Your task to perform on an android device: delete a single message in the gmail app Image 0: 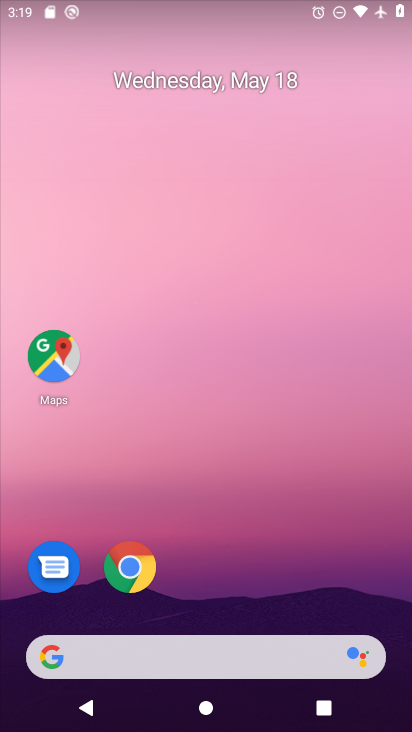
Step 0: drag from (220, 595) to (251, 239)
Your task to perform on an android device: delete a single message in the gmail app Image 1: 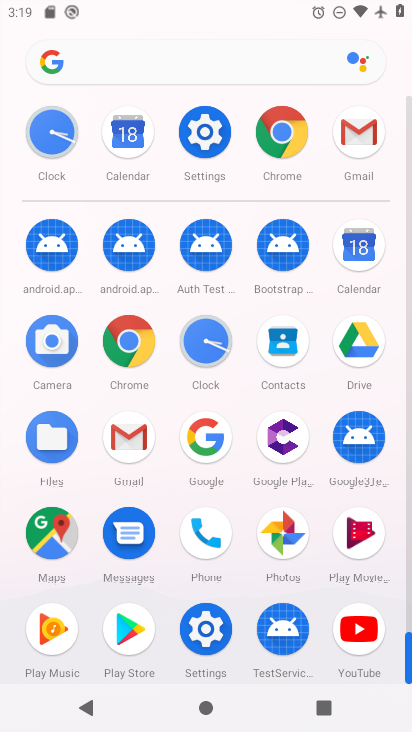
Step 1: click (116, 437)
Your task to perform on an android device: delete a single message in the gmail app Image 2: 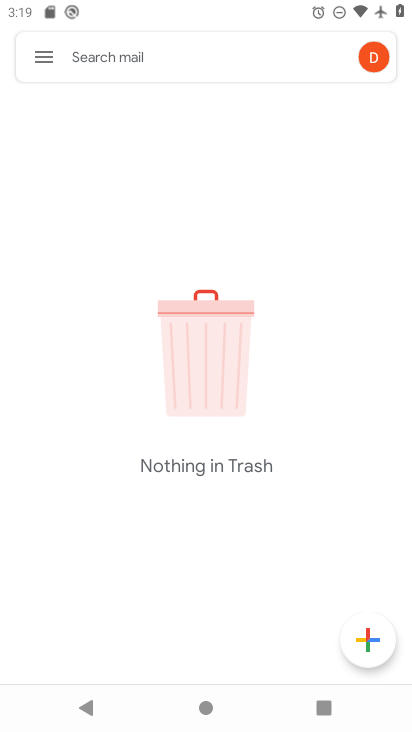
Step 2: click (35, 56)
Your task to perform on an android device: delete a single message in the gmail app Image 3: 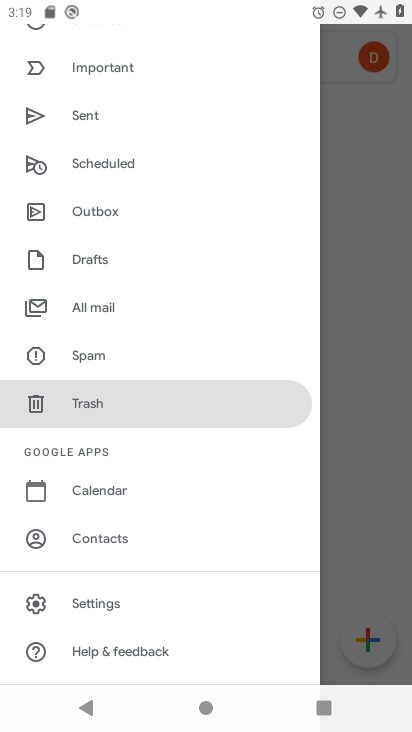
Step 3: click (132, 287)
Your task to perform on an android device: delete a single message in the gmail app Image 4: 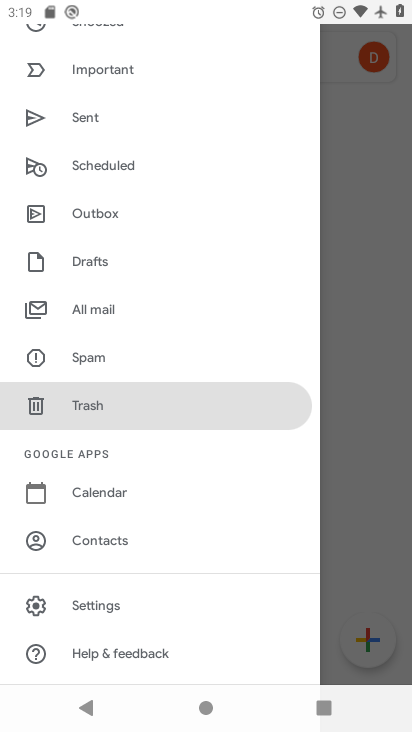
Step 4: click (92, 298)
Your task to perform on an android device: delete a single message in the gmail app Image 5: 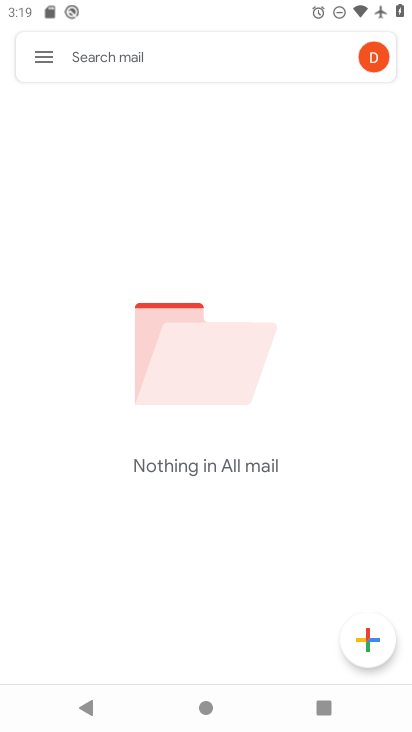
Step 5: task complete